Your task to perform on an android device: refresh tabs in the chrome app Image 0: 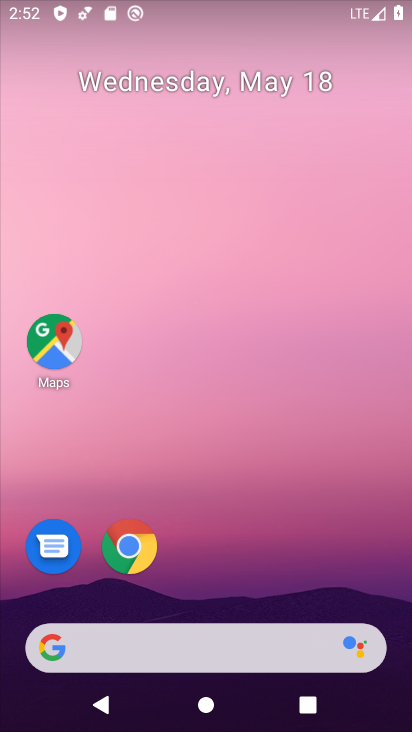
Step 0: click (133, 549)
Your task to perform on an android device: refresh tabs in the chrome app Image 1: 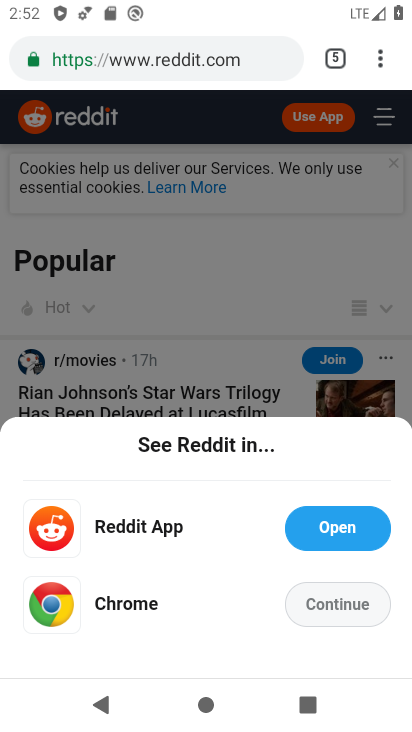
Step 1: click (381, 66)
Your task to perform on an android device: refresh tabs in the chrome app Image 2: 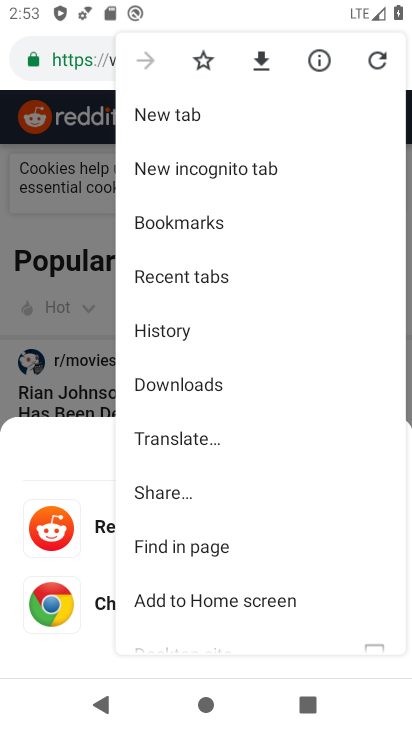
Step 2: click (375, 57)
Your task to perform on an android device: refresh tabs in the chrome app Image 3: 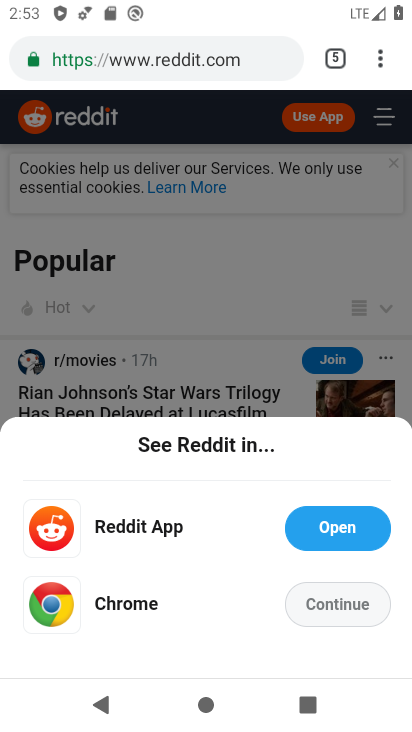
Step 3: task complete